Your task to perform on an android device: turn notification dots off Image 0: 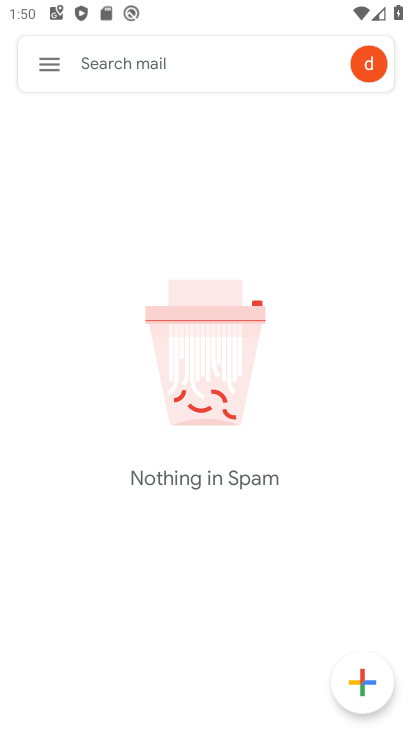
Step 0: press home button
Your task to perform on an android device: turn notification dots off Image 1: 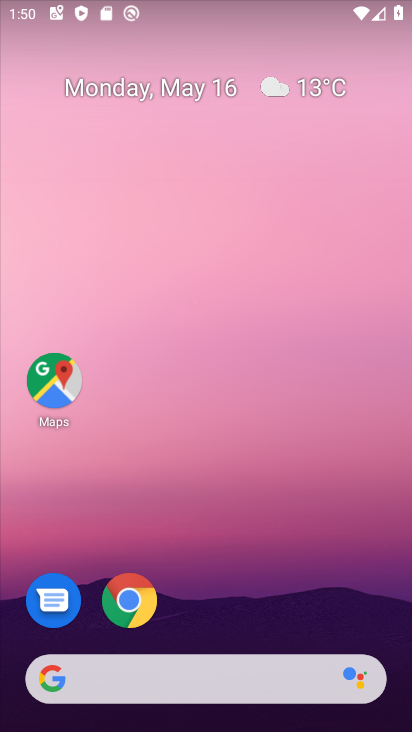
Step 1: drag from (236, 595) to (207, 58)
Your task to perform on an android device: turn notification dots off Image 2: 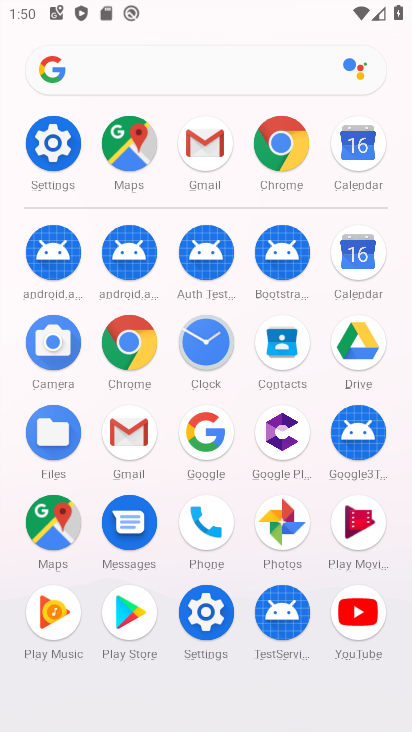
Step 2: click (214, 615)
Your task to perform on an android device: turn notification dots off Image 3: 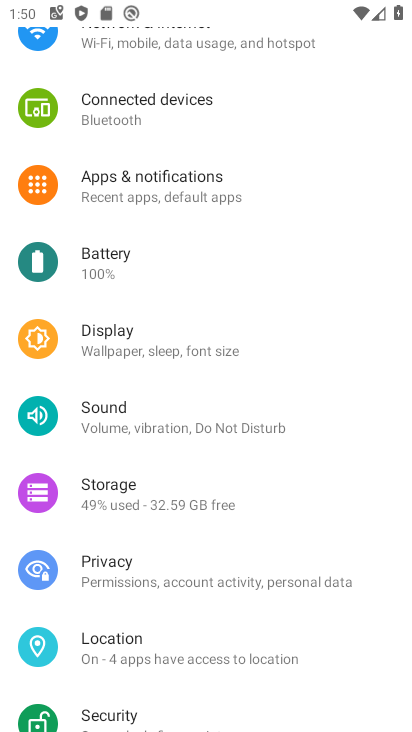
Step 3: click (190, 173)
Your task to perform on an android device: turn notification dots off Image 4: 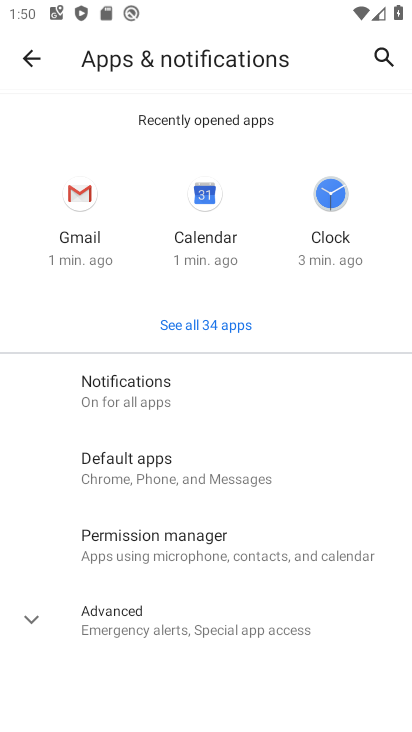
Step 4: click (154, 387)
Your task to perform on an android device: turn notification dots off Image 5: 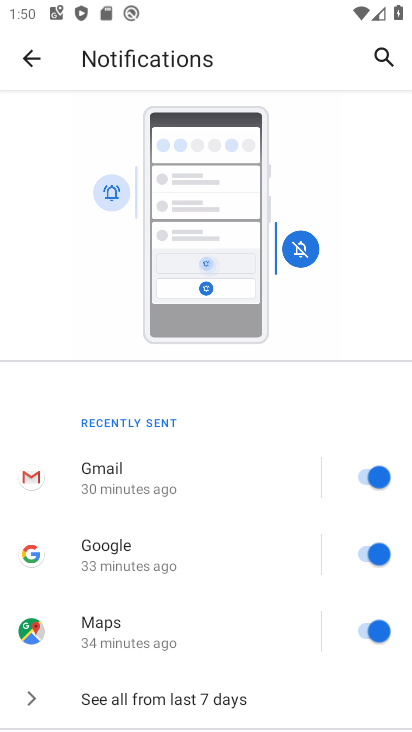
Step 5: drag from (170, 684) to (151, 156)
Your task to perform on an android device: turn notification dots off Image 6: 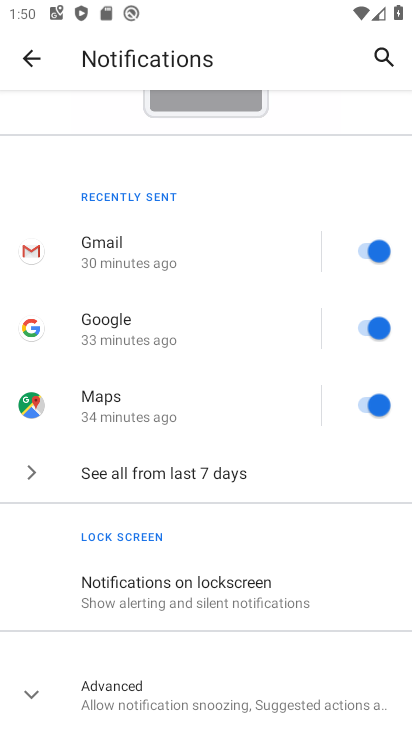
Step 6: click (176, 701)
Your task to perform on an android device: turn notification dots off Image 7: 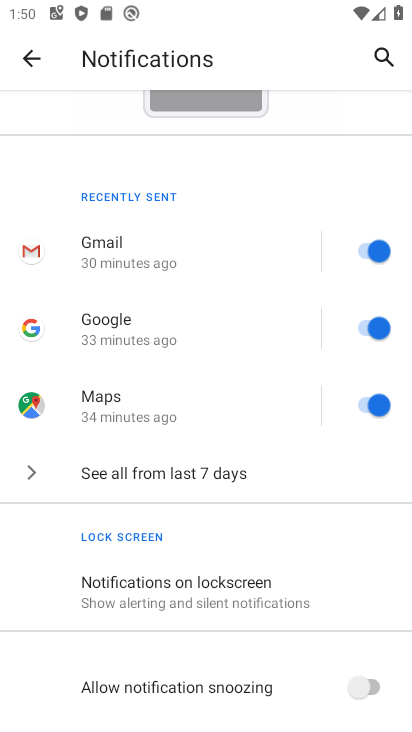
Step 7: task complete